Your task to perform on an android device: empty trash in the gmail app Image 0: 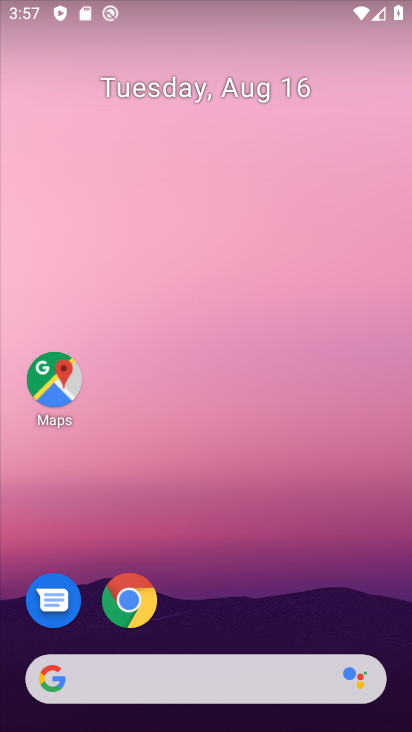
Step 0: drag from (220, 594) to (241, 33)
Your task to perform on an android device: empty trash in the gmail app Image 1: 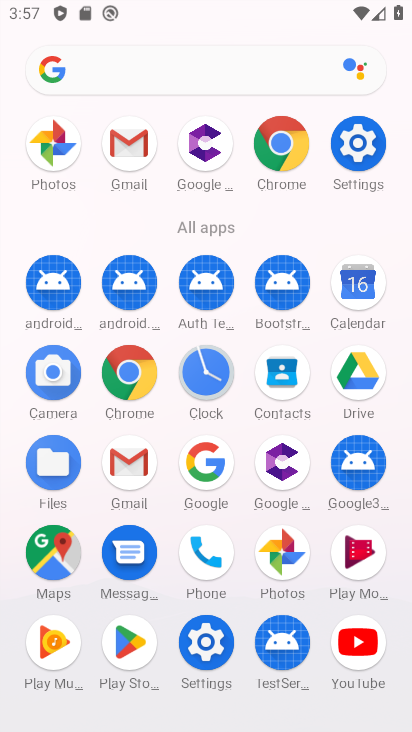
Step 1: click (131, 459)
Your task to perform on an android device: empty trash in the gmail app Image 2: 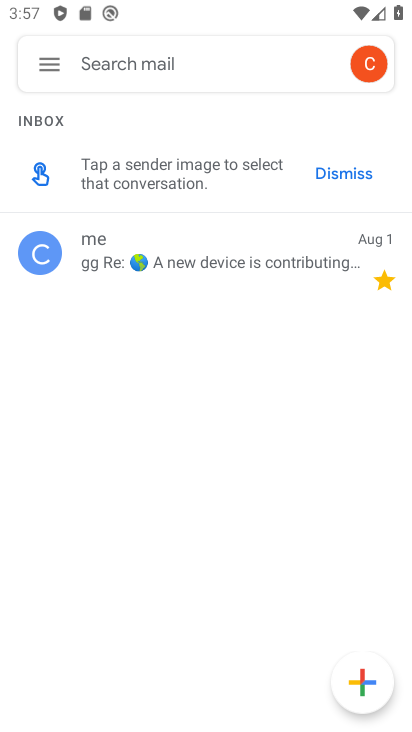
Step 2: click (51, 65)
Your task to perform on an android device: empty trash in the gmail app Image 3: 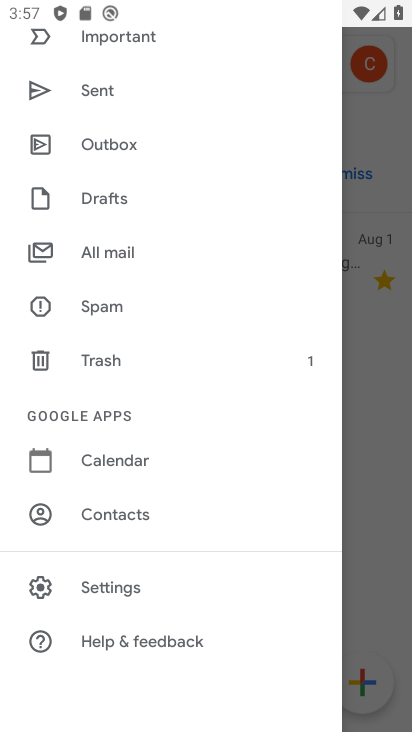
Step 3: click (120, 363)
Your task to perform on an android device: empty trash in the gmail app Image 4: 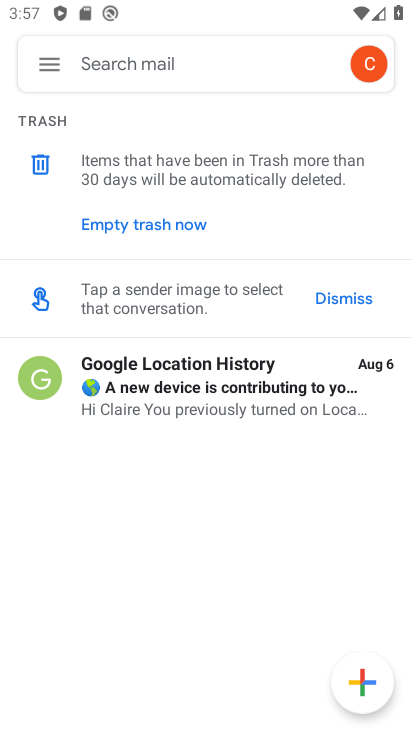
Step 4: click (146, 218)
Your task to perform on an android device: empty trash in the gmail app Image 5: 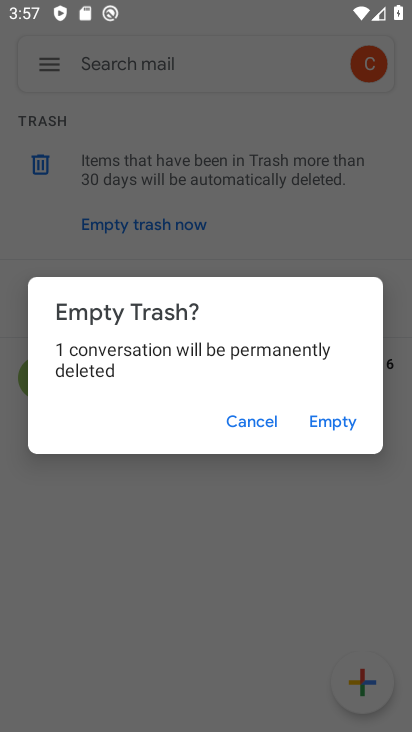
Step 5: click (330, 416)
Your task to perform on an android device: empty trash in the gmail app Image 6: 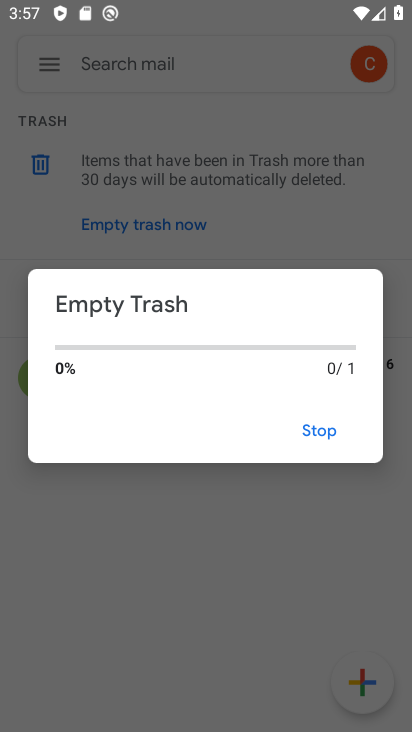
Step 6: click (333, 422)
Your task to perform on an android device: empty trash in the gmail app Image 7: 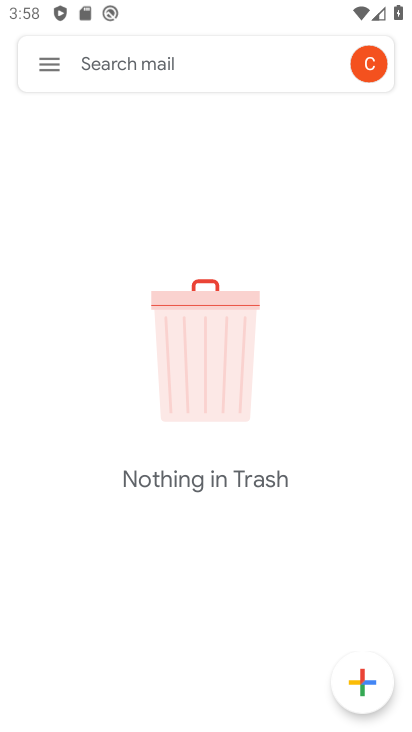
Step 7: task complete